Your task to perform on an android device: Open battery settings Image 0: 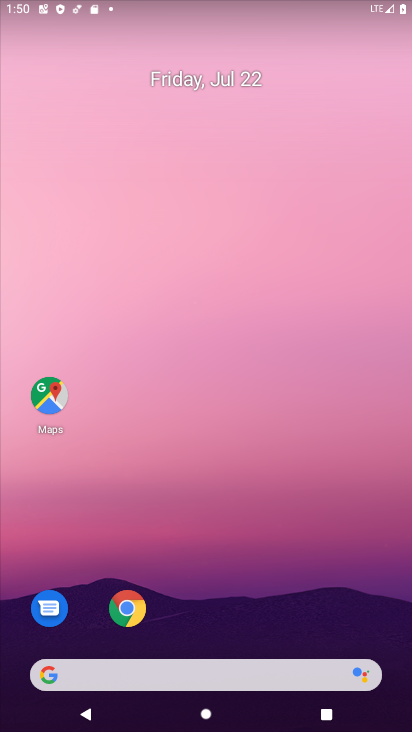
Step 0: drag from (239, 725) to (249, 105)
Your task to perform on an android device: Open battery settings Image 1: 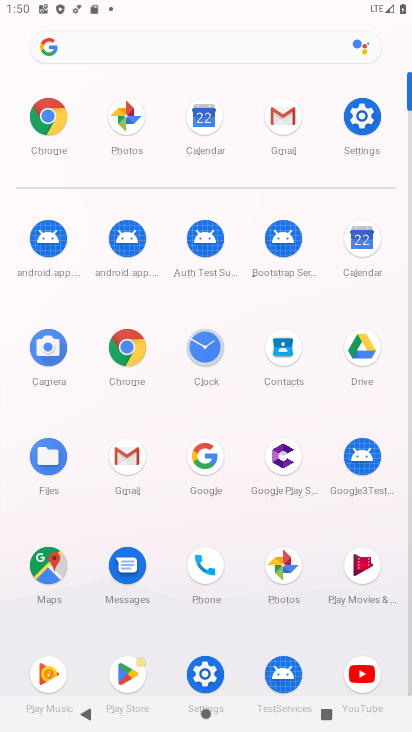
Step 1: click (359, 107)
Your task to perform on an android device: Open battery settings Image 2: 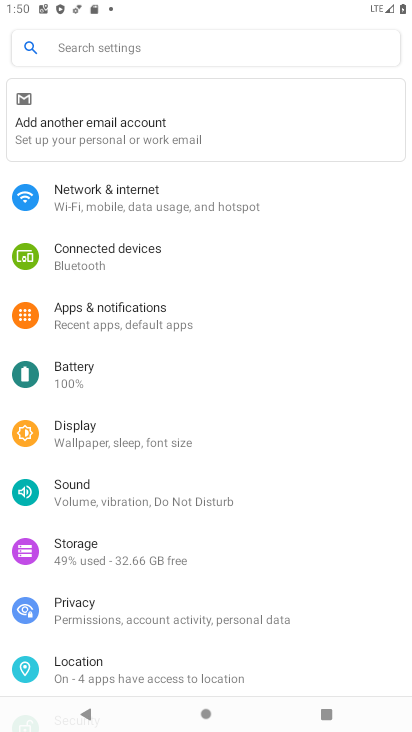
Step 2: click (74, 368)
Your task to perform on an android device: Open battery settings Image 3: 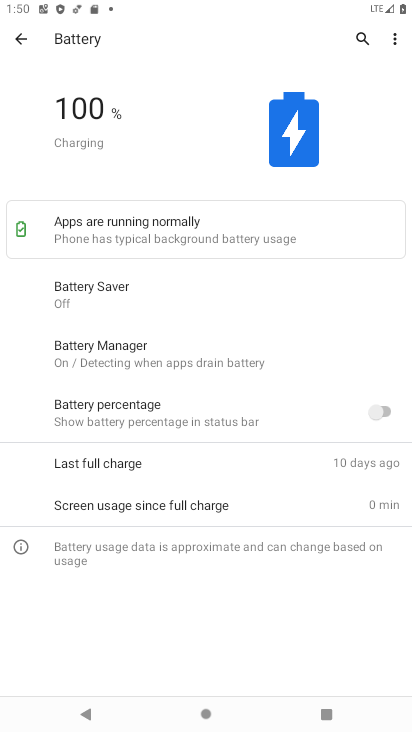
Step 3: task complete